Your task to perform on an android device: open sync settings in chrome Image 0: 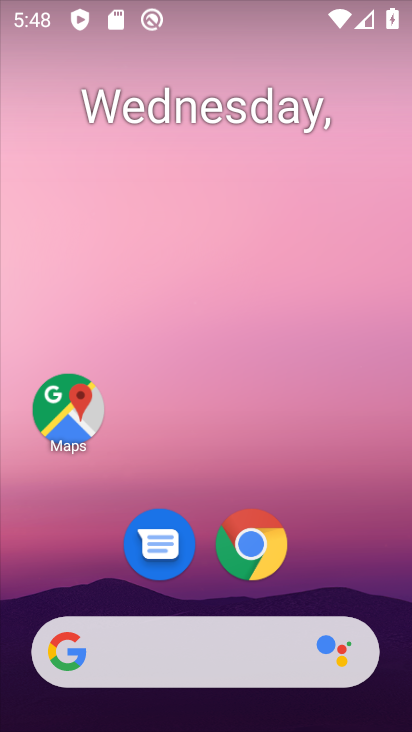
Step 0: click (268, 545)
Your task to perform on an android device: open sync settings in chrome Image 1: 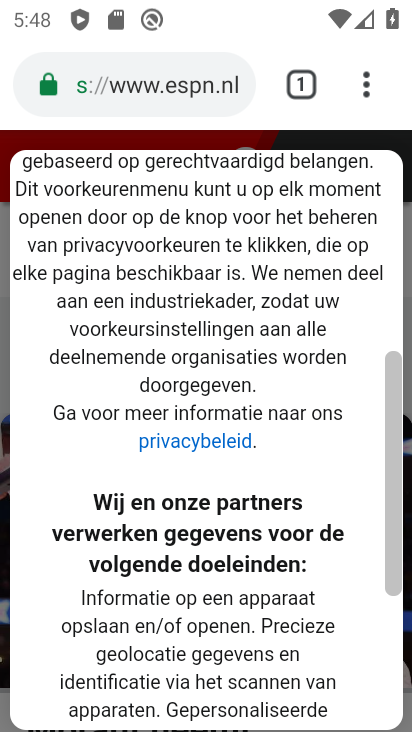
Step 1: click (356, 84)
Your task to perform on an android device: open sync settings in chrome Image 2: 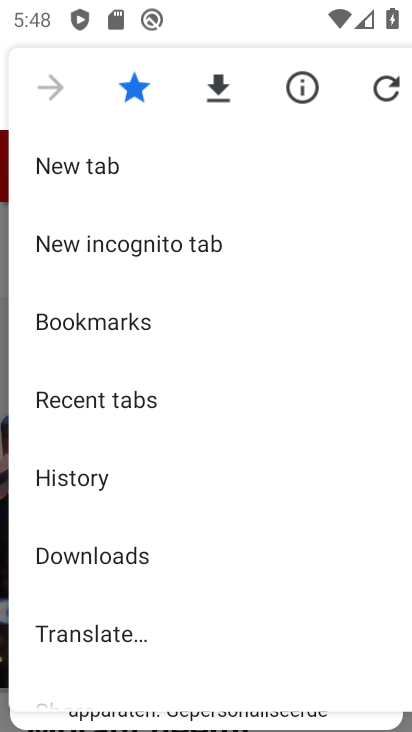
Step 2: drag from (277, 588) to (289, 164)
Your task to perform on an android device: open sync settings in chrome Image 3: 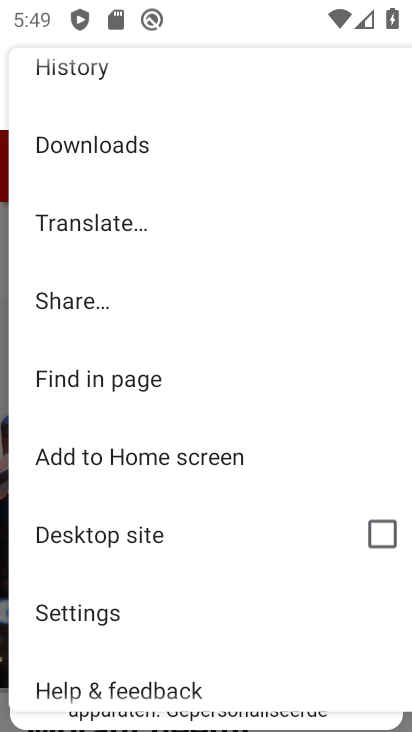
Step 3: drag from (218, 517) to (237, 99)
Your task to perform on an android device: open sync settings in chrome Image 4: 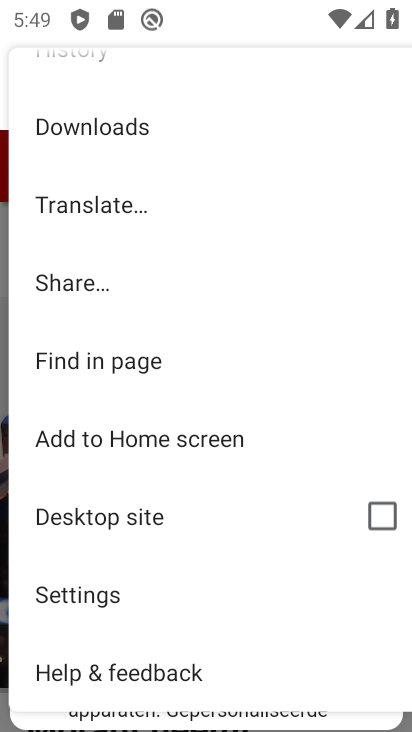
Step 4: click (137, 581)
Your task to perform on an android device: open sync settings in chrome Image 5: 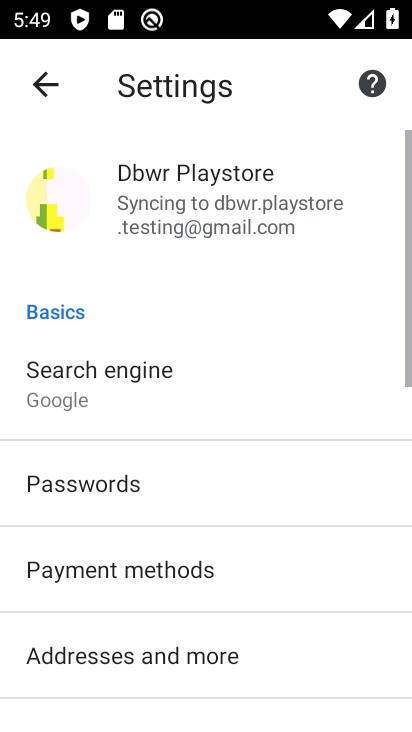
Step 5: drag from (234, 603) to (222, 91)
Your task to perform on an android device: open sync settings in chrome Image 6: 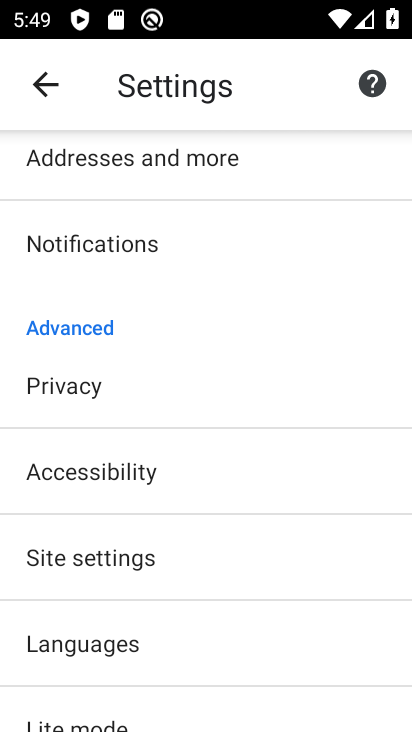
Step 6: click (178, 542)
Your task to perform on an android device: open sync settings in chrome Image 7: 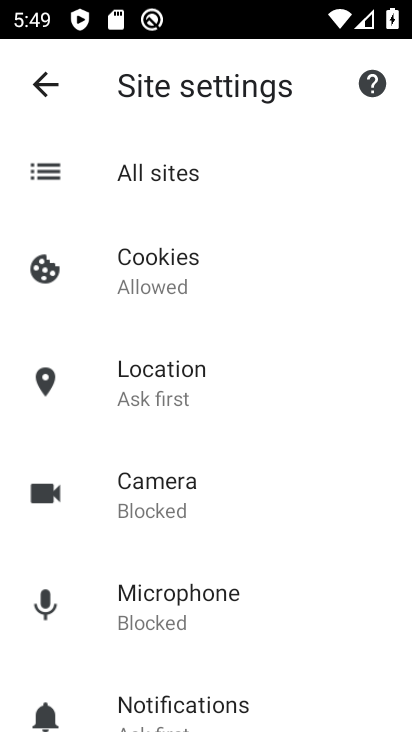
Step 7: drag from (234, 585) to (233, 241)
Your task to perform on an android device: open sync settings in chrome Image 8: 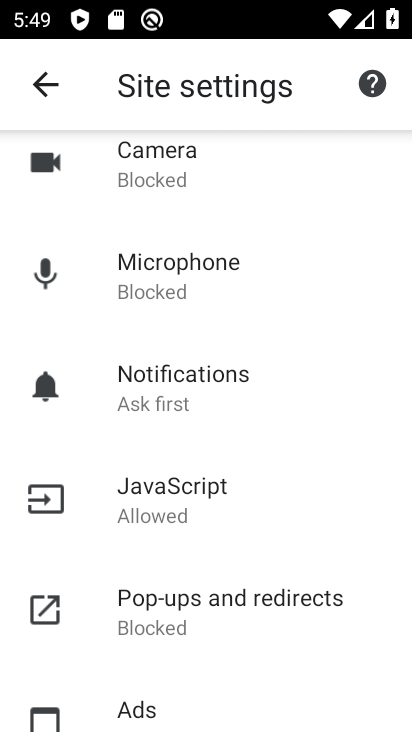
Step 8: drag from (262, 644) to (267, 343)
Your task to perform on an android device: open sync settings in chrome Image 9: 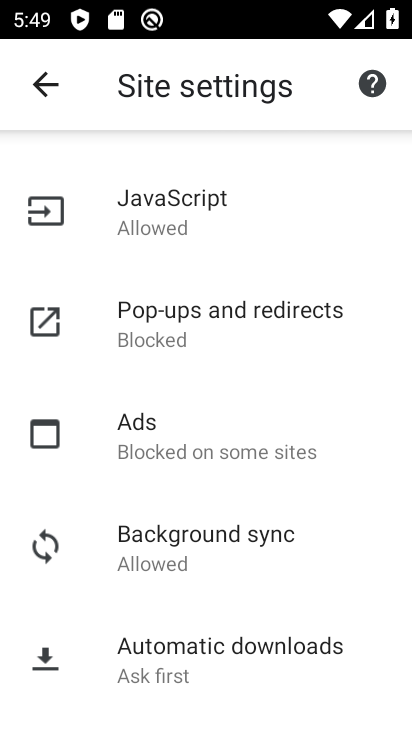
Step 9: click (223, 543)
Your task to perform on an android device: open sync settings in chrome Image 10: 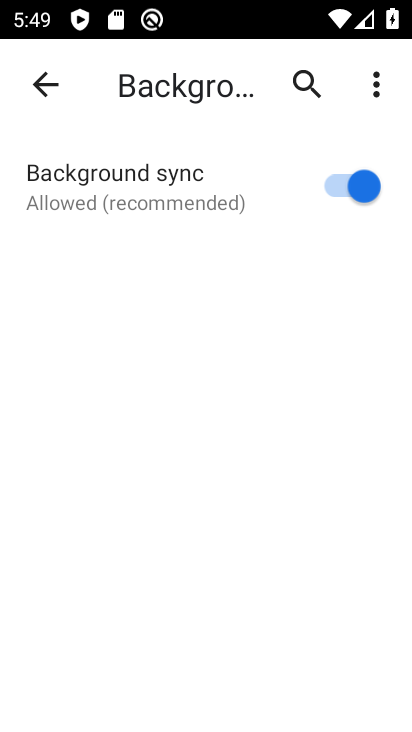
Step 10: task complete